Your task to perform on an android device: open a bookmark in the chrome app Image 0: 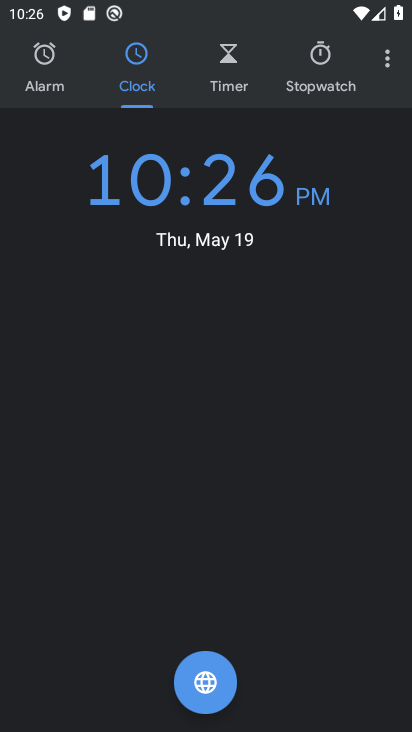
Step 0: press home button
Your task to perform on an android device: open a bookmark in the chrome app Image 1: 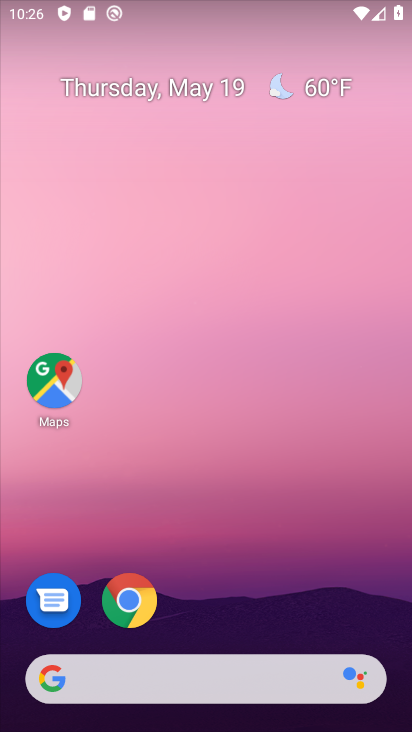
Step 1: drag from (354, 621) to (368, 217)
Your task to perform on an android device: open a bookmark in the chrome app Image 2: 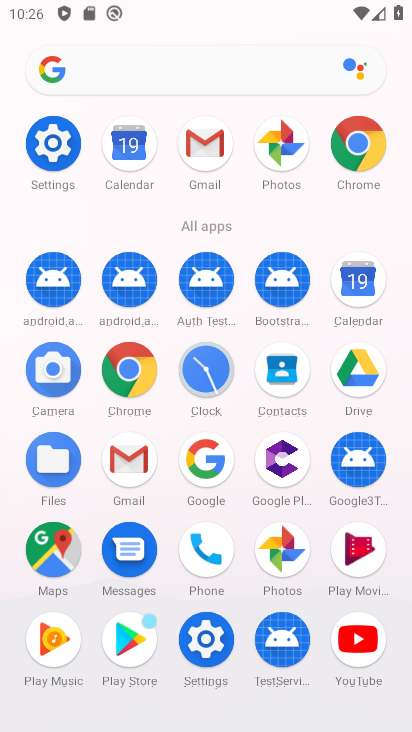
Step 2: click (138, 385)
Your task to perform on an android device: open a bookmark in the chrome app Image 3: 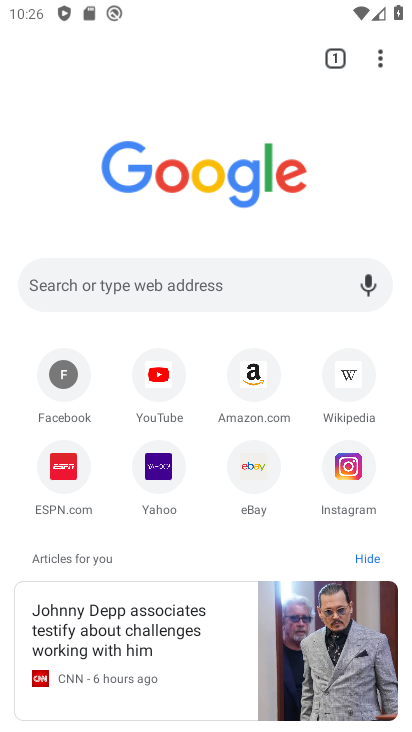
Step 3: click (379, 65)
Your task to perform on an android device: open a bookmark in the chrome app Image 4: 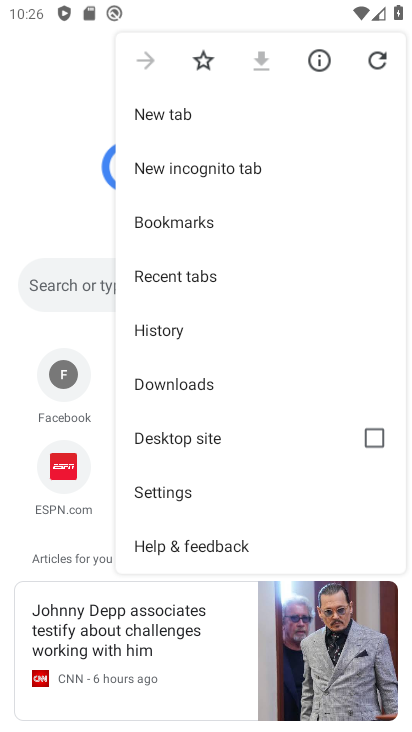
Step 4: click (246, 222)
Your task to perform on an android device: open a bookmark in the chrome app Image 5: 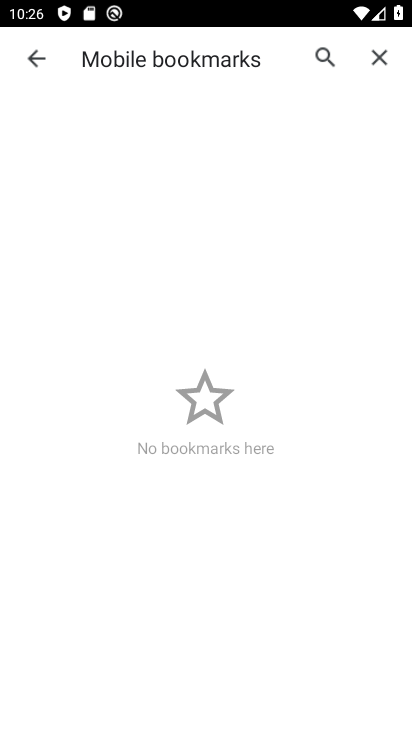
Step 5: task complete